Your task to perform on an android device: turn notification dots off Image 0: 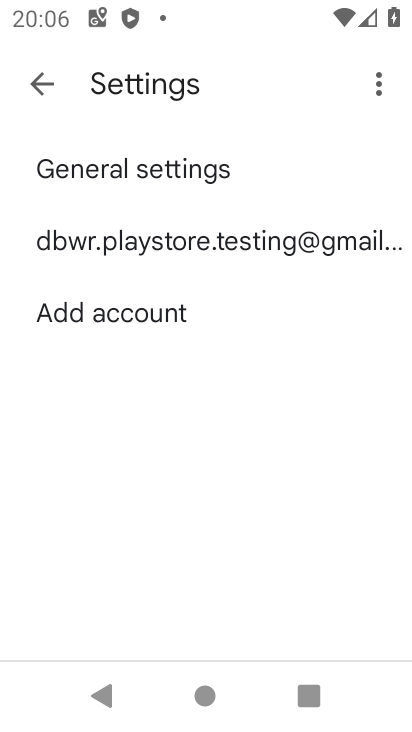
Step 0: press home button
Your task to perform on an android device: turn notification dots off Image 1: 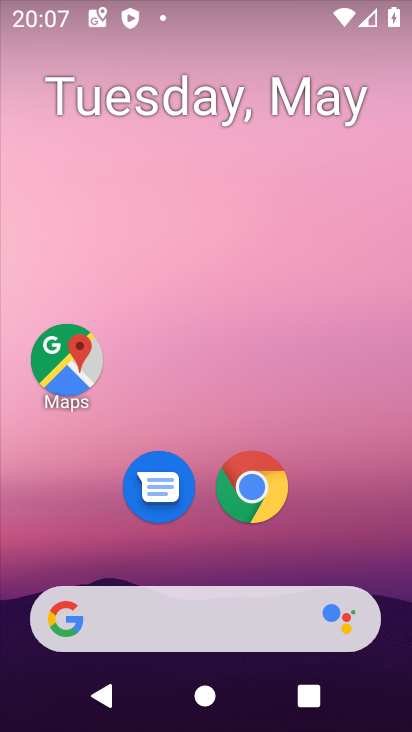
Step 1: drag from (357, 534) to (351, 202)
Your task to perform on an android device: turn notification dots off Image 2: 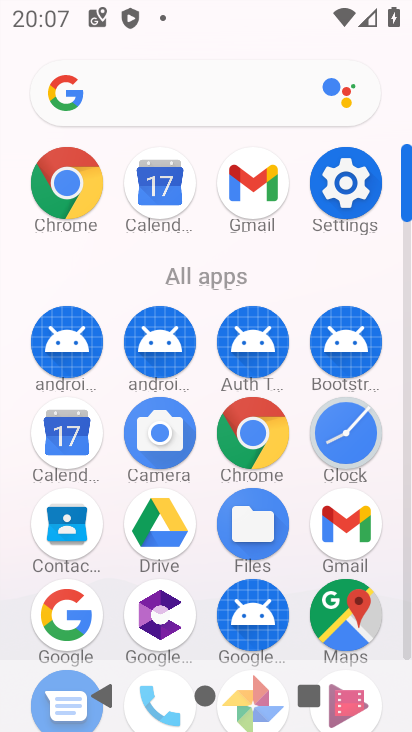
Step 2: click (340, 202)
Your task to perform on an android device: turn notification dots off Image 3: 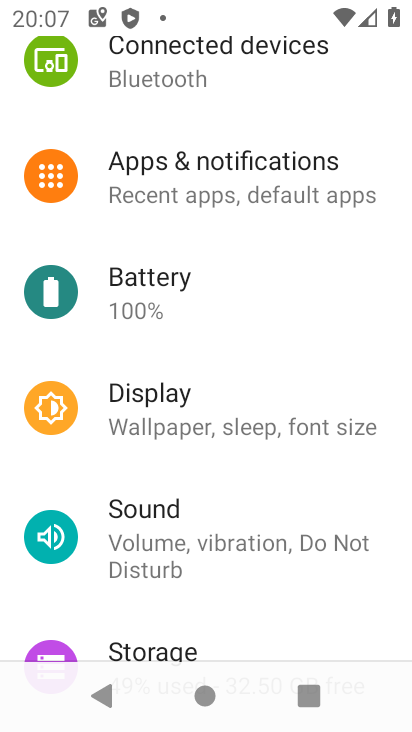
Step 3: drag from (257, 566) to (260, 239)
Your task to perform on an android device: turn notification dots off Image 4: 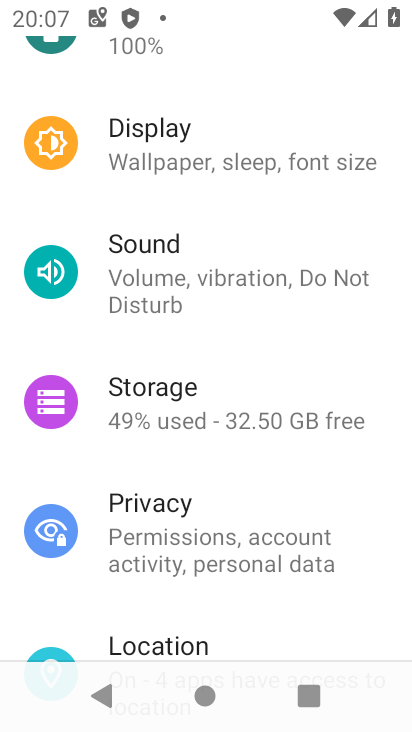
Step 4: drag from (231, 598) to (246, 219)
Your task to perform on an android device: turn notification dots off Image 5: 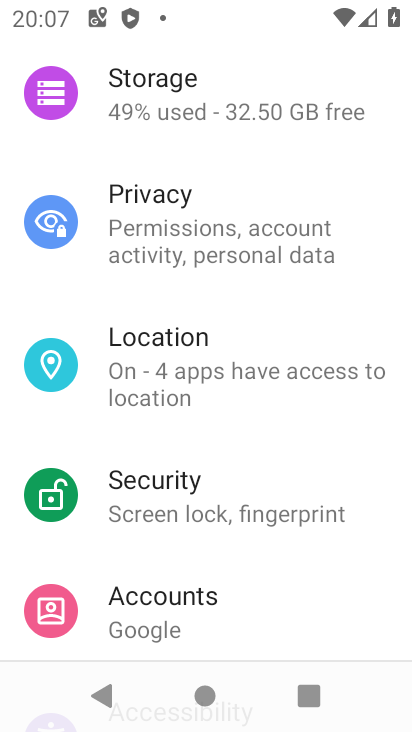
Step 5: drag from (246, 224) to (218, 567)
Your task to perform on an android device: turn notification dots off Image 6: 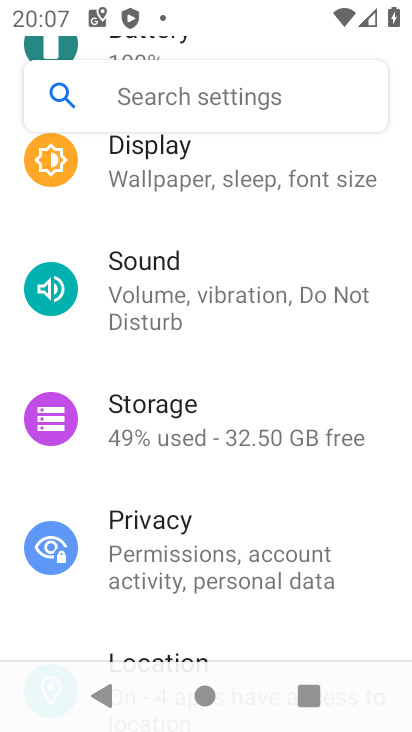
Step 6: drag from (234, 268) to (281, 377)
Your task to perform on an android device: turn notification dots off Image 7: 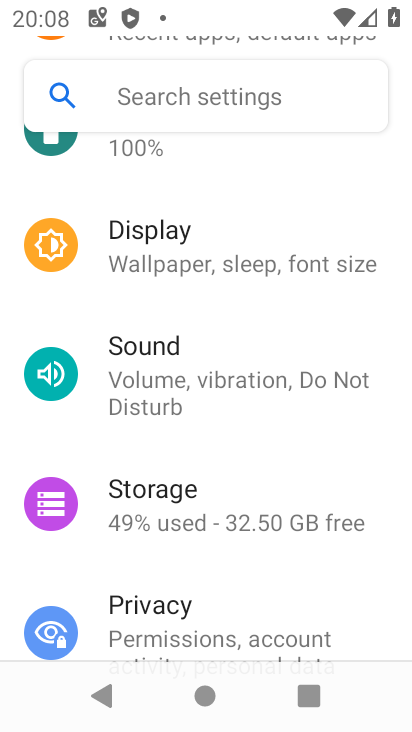
Step 7: drag from (272, 260) to (305, 501)
Your task to perform on an android device: turn notification dots off Image 8: 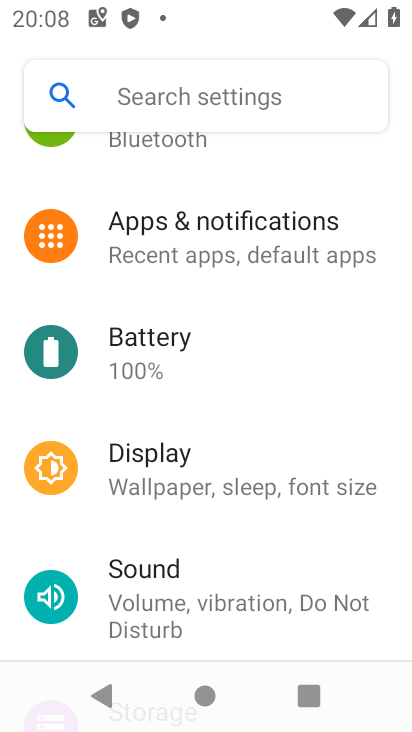
Step 8: click (218, 213)
Your task to perform on an android device: turn notification dots off Image 9: 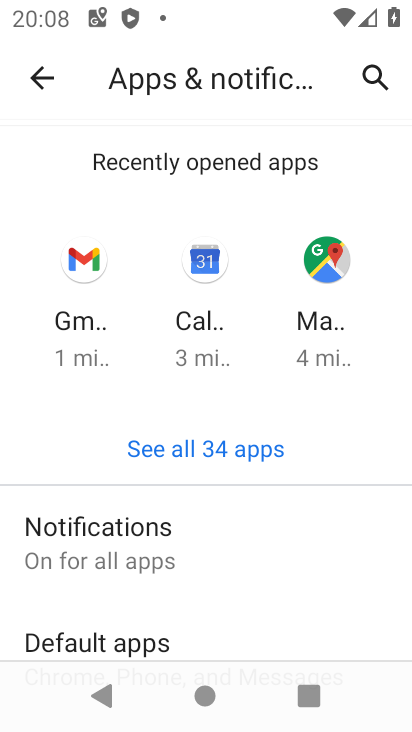
Step 9: drag from (271, 571) to (269, 313)
Your task to perform on an android device: turn notification dots off Image 10: 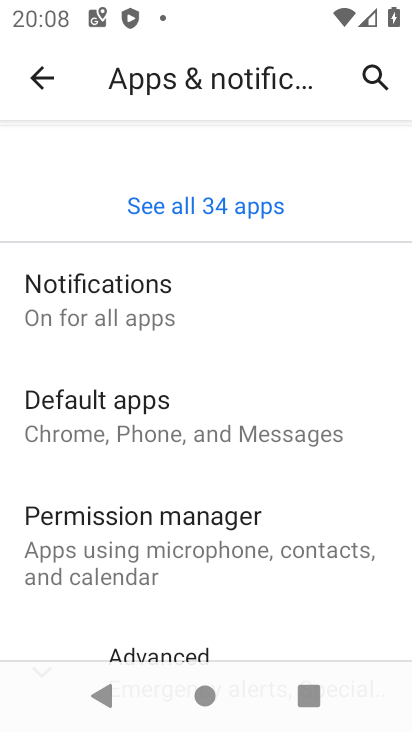
Step 10: drag from (219, 602) to (241, 482)
Your task to perform on an android device: turn notification dots off Image 11: 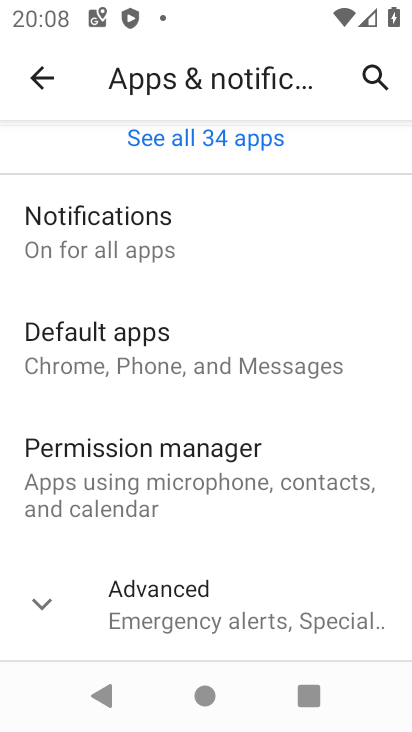
Step 11: click (251, 241)
Your task to perform on an android device: turn notification dots off Image 12: 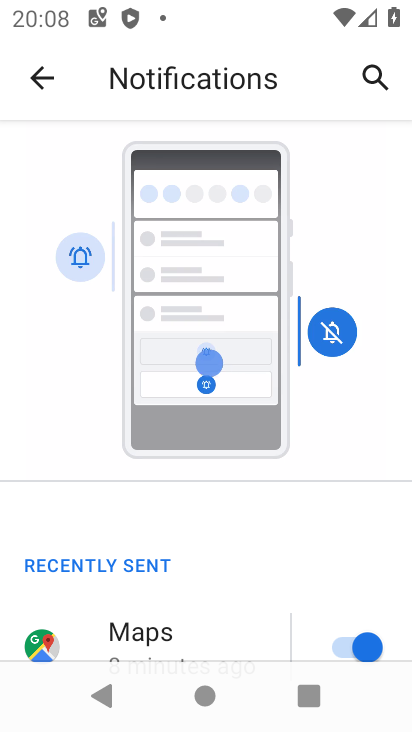
Step 12: drag from (210, 626) to (242, 321)
Your task to perform on an android device: turn notification dots off Image 13: 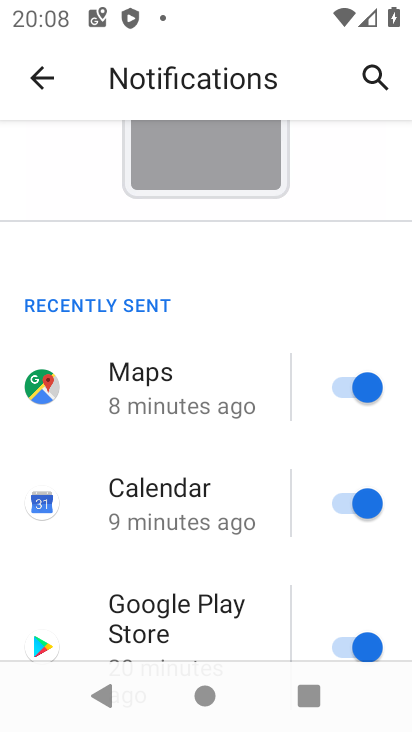
Step 13: drag from (213, 636) to (214, 344)
Your task to perform on an android device: turn notification dots off Image 14: 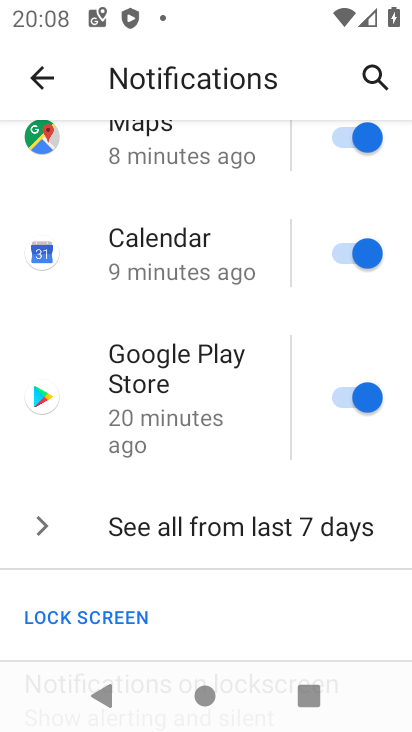
Step 14: drag from (163, 595) to (219, 99)
Your task to perform on an android device: turn notification dots off Image 15: 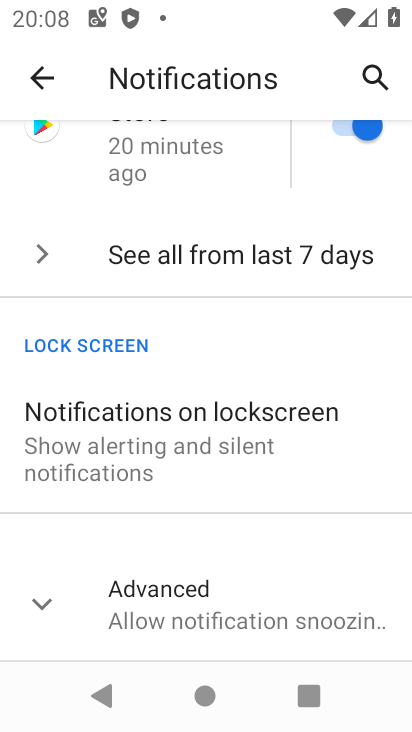
Step 15: click (207, 623)
Your task to perform on an android device: turn notification dots off Image 16: 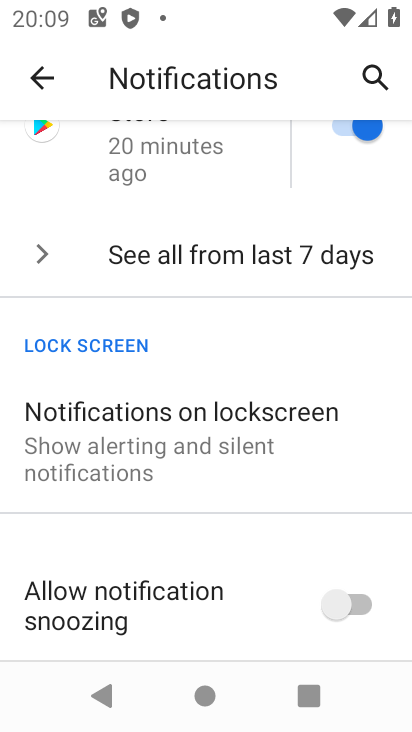
Step 16: drag from (257, 595) to (255, 354)
Your task to perform on an android device: turn notification dots off Image 17: 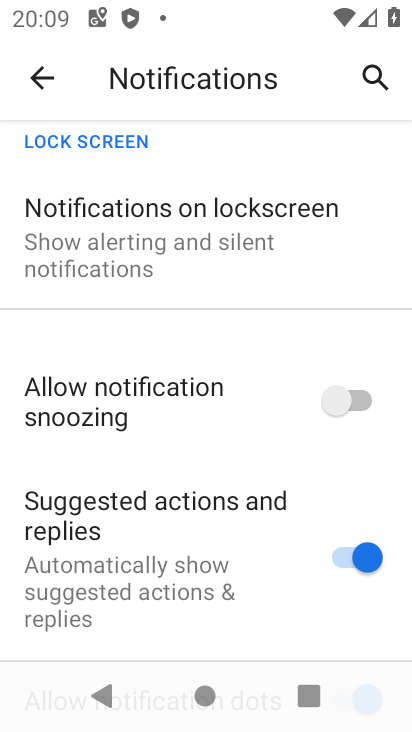
Step 17: drag from (247, 589) to (253, 442)
Your task to perform on an android device: turn notification dots off Image 18: 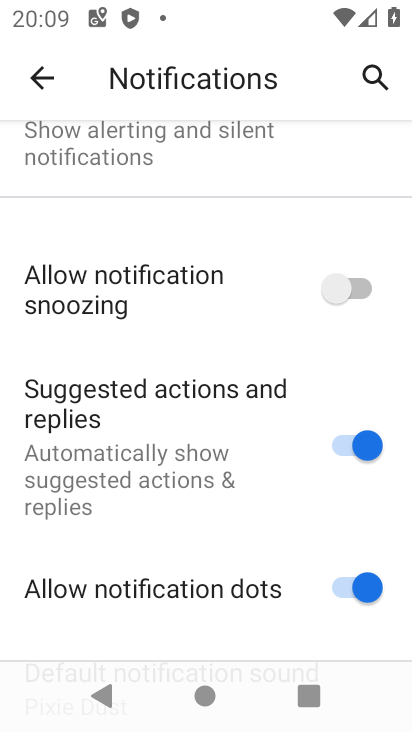
Step 18: click (297, 590)
Your task to perform on an android device: turn notification dots off Image 19: 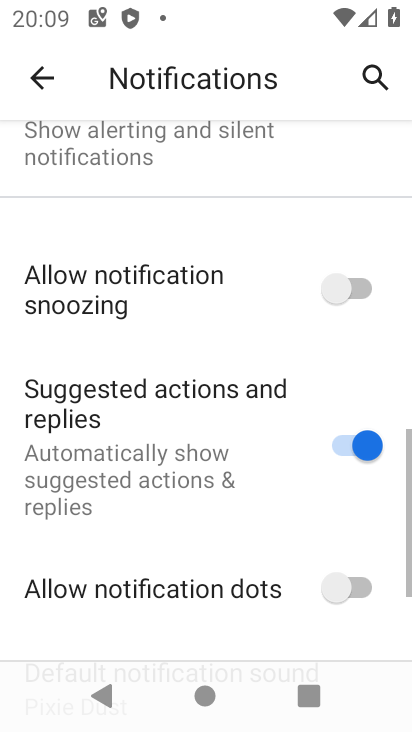
Step 19: task complete